Your task to perform on an android device: Go to Android settings Image 0: 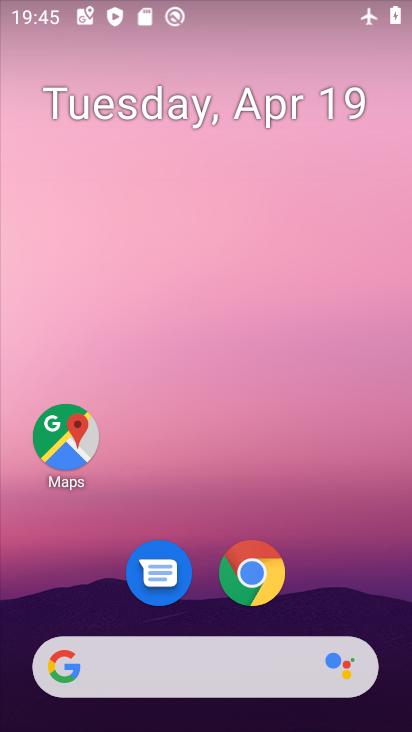
Step 0: drag from (332, 297) to (302, 98)
Your task to perform on an android device: Go to Android settings Image 1: 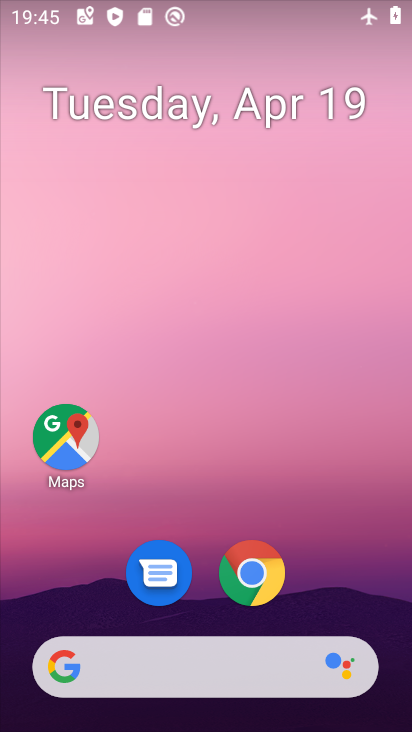
Step 1: click (358, 122)
Your task to perform on an android device: Go to Android settings Image 2: 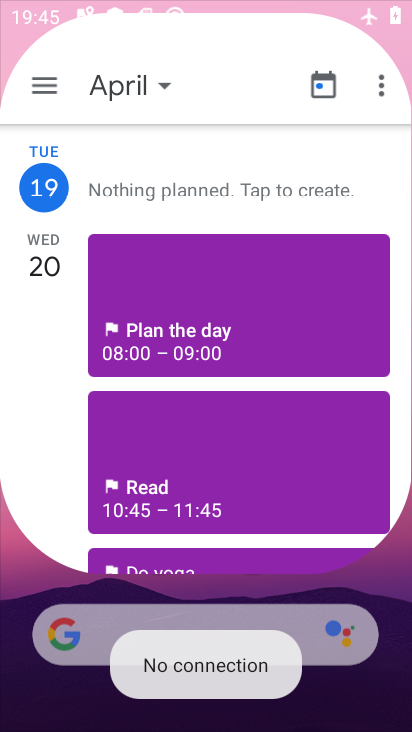
Step 2: drag from (365, 532) to (300, 36)
Your task to perform on an android device: Go to Android settings Image 3: 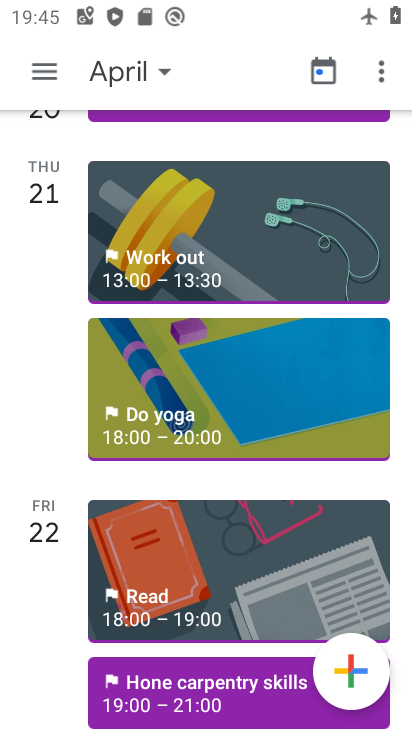
Step 3: press back button
Your task to perform on an android device: Go to Android settings Image 4: 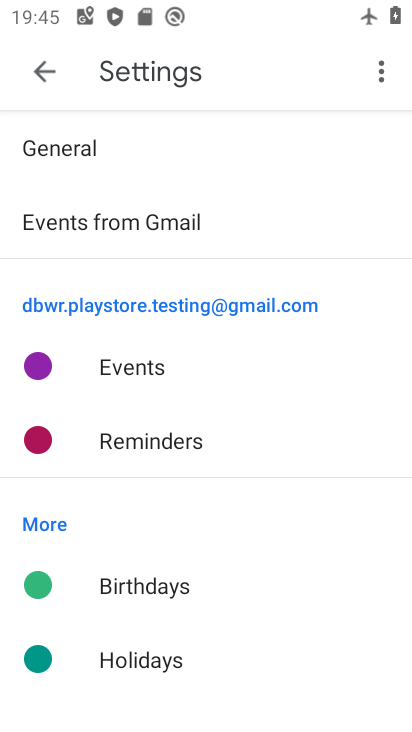
Step 4: press home button
Your task to perform on an android device: Go to Android settings Image 5: 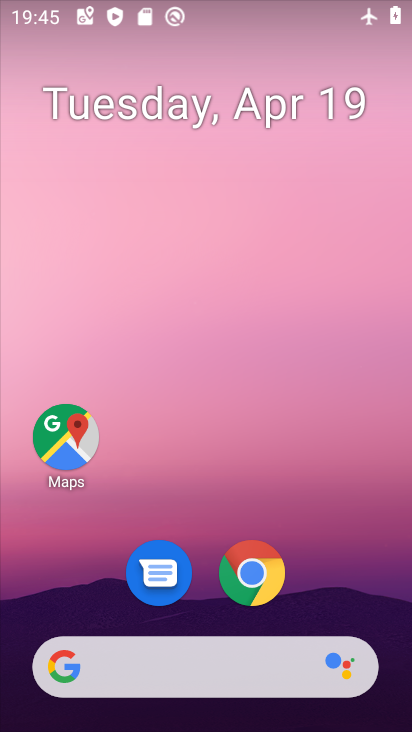
Step 5: drag from (381, 619) to (309, 13)
Your task to perform on an android device: Go to Android settings Image 6: 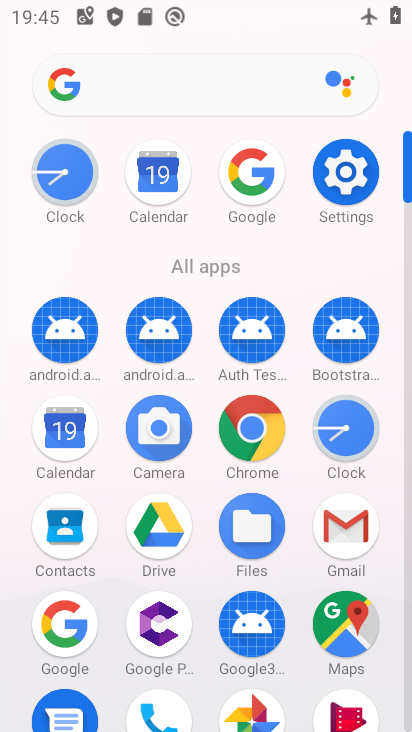
Step 6: click (339, 183)
Your task to perform on an android device: Go to Android settings Image 7: 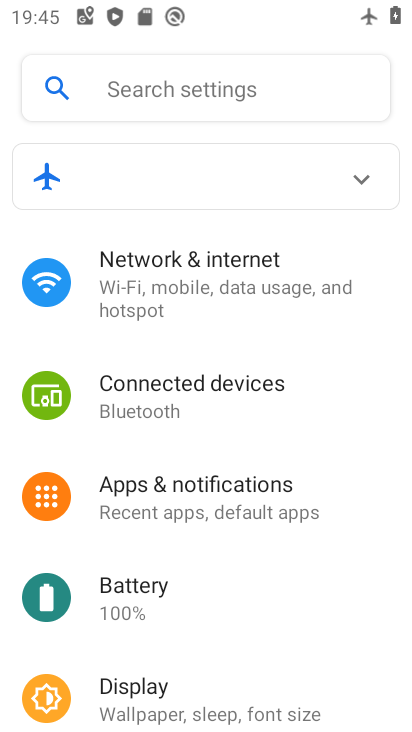
Step 7: click (343, 116)
Your task to perform on an android device: Go to Android settings Image 8: 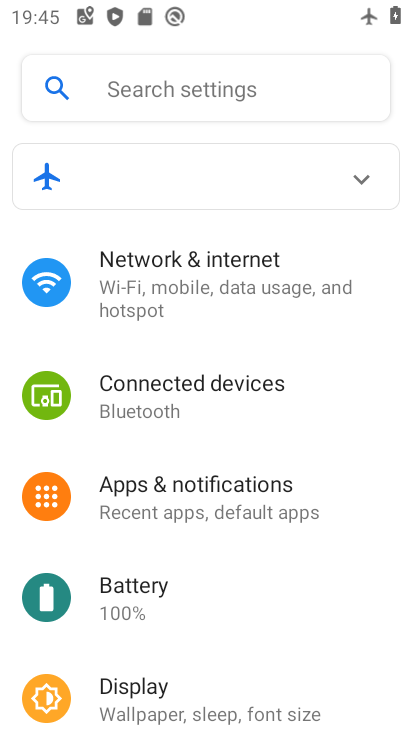
Step 8: drag from (410, 429) to (411, 157)
Your task to perform on an android device: Go to Android settings Image 9: 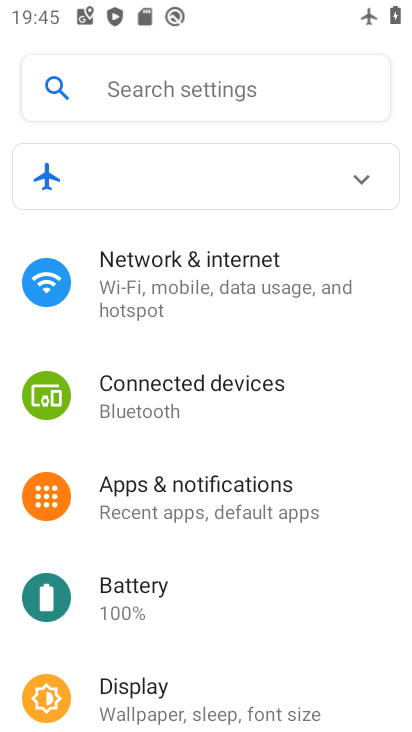
Step 9: drag from (369, 386) to (346, 260)
Your task to perform on an android device: Go to Android settings Image 10: 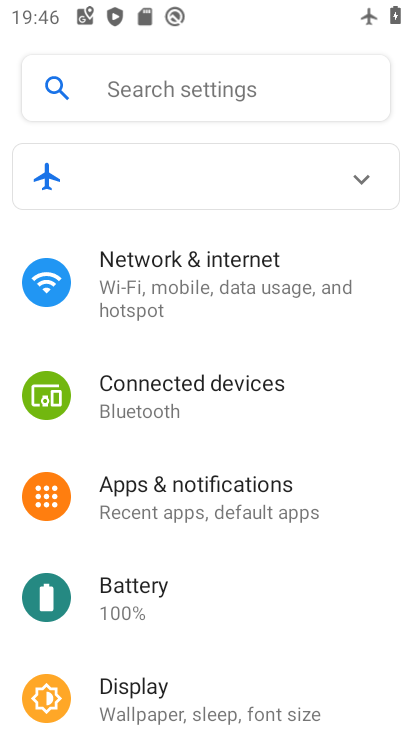
Step 10: drag from (389, 682) to (387, 251)
Your task to perform on an android device: Go to Android settings Image 11: 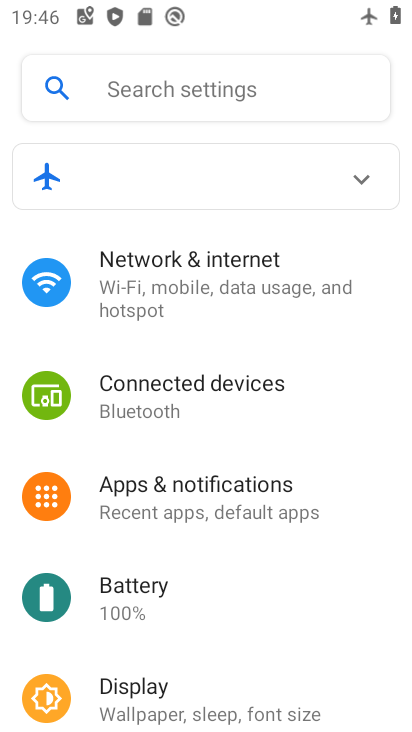
Step 11: drag from (409, 520) to (406, 292)
Your task to perform on an android device: Go to Android settings Image 12: 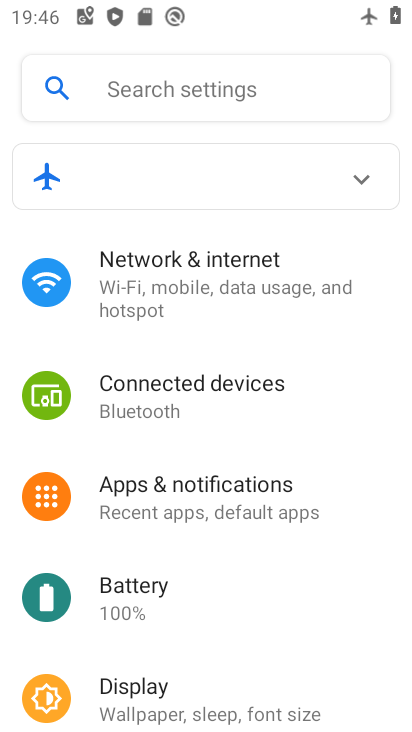
Step 12: drag from (395, 691) to (408, 464)
Your task to perform on an android device: Go to Android settings Image 13: 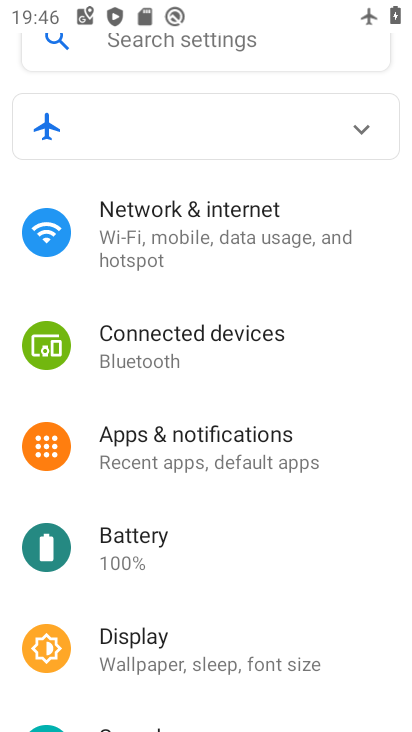
Step 13: drag from (385, 669) to (370, 177)
Your task to perform on an android device: Go to Android settings Image 14: 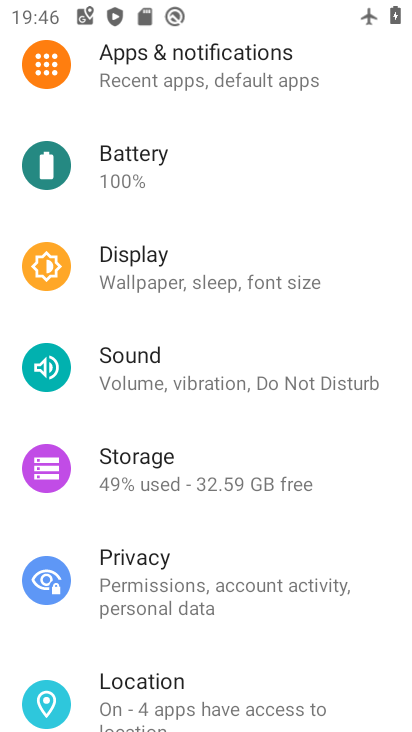
Step 14: drag from (393, 630) to (393, 163)
Your task to perform on an android device: Go to Android settings Image 15: 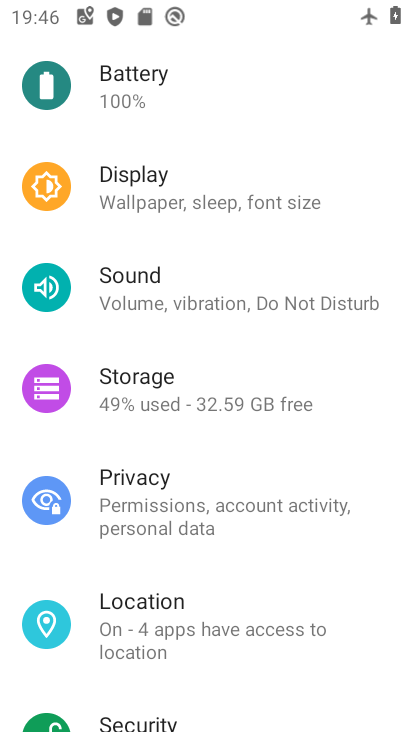
Step 15: drag from (389, 642) to (405, 126)
Your task to perform on an android device: Go to Android settings Image 16: 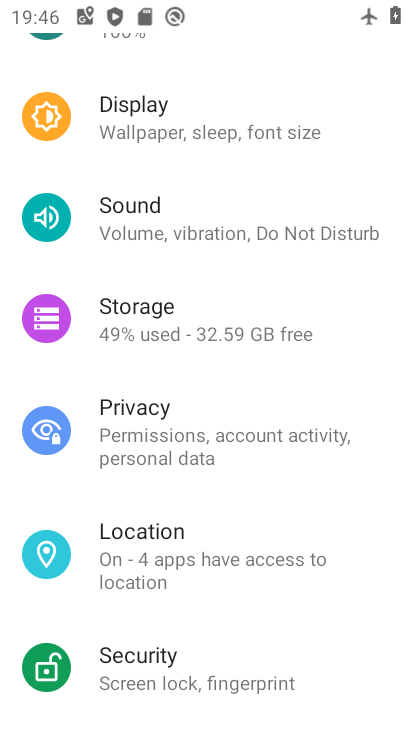
Step 16: drag from (408, 464) to (411, 541)
Your task to perform on an android device: Go to Android settings Image 17: 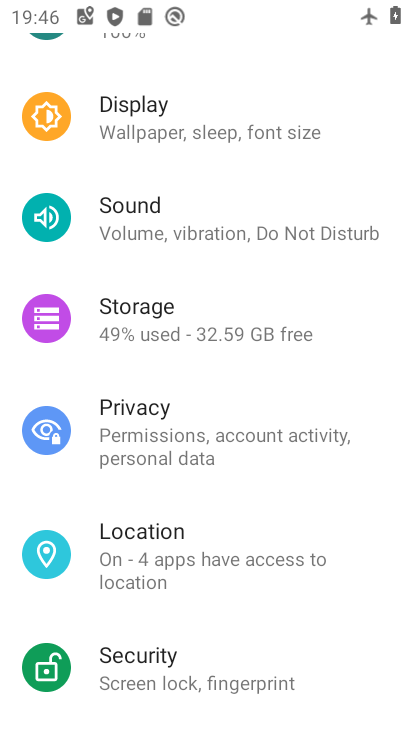
Step 17: drag from (401, 516) to (409, 209)
Your task to perform on an android device: Go to Android settings Image 18: 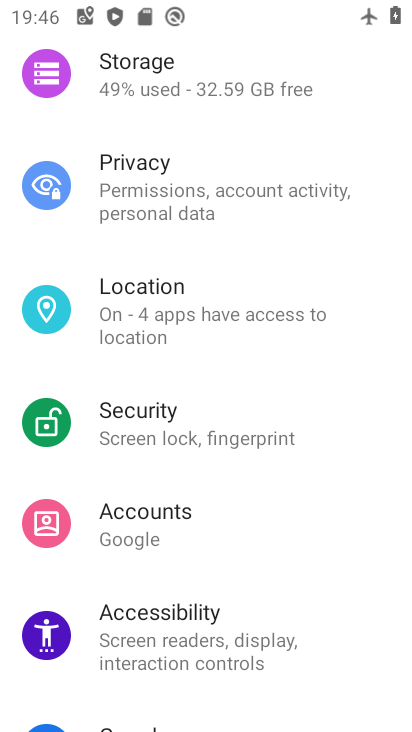
Step 18: drag from (394, 554) to (410, 503)
Your task to perform on an android device: Go to Android settings Image 19: 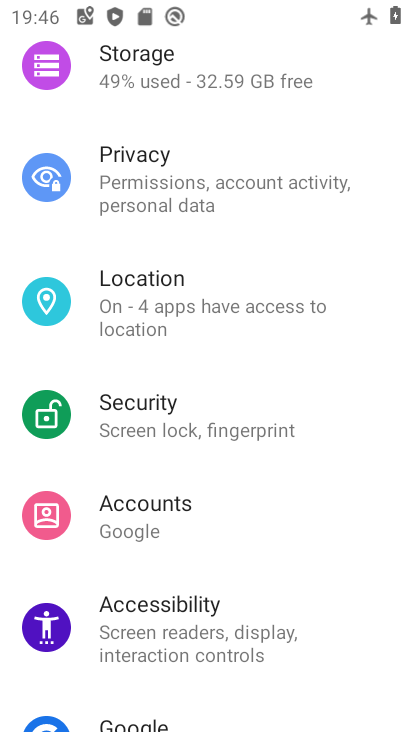
Step 19: drag from (405, 420) to (411, 180)
Your task to perform on an android device: Go to Android settings Image 20: 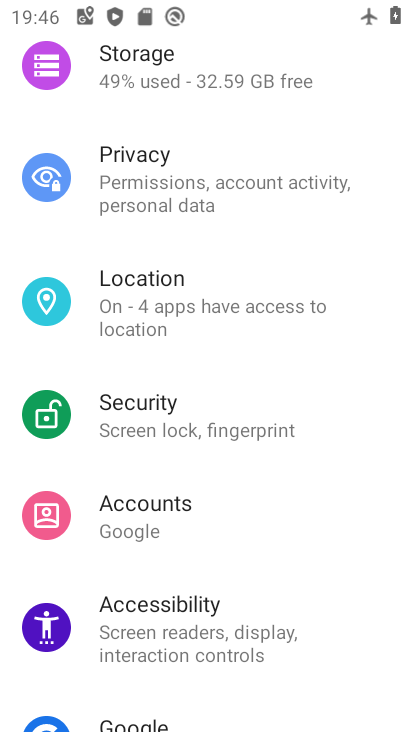
Step 20: drag from (388, 542) to (400, 102)
Your task to perform on an android device: Go to Android settings Image 21: 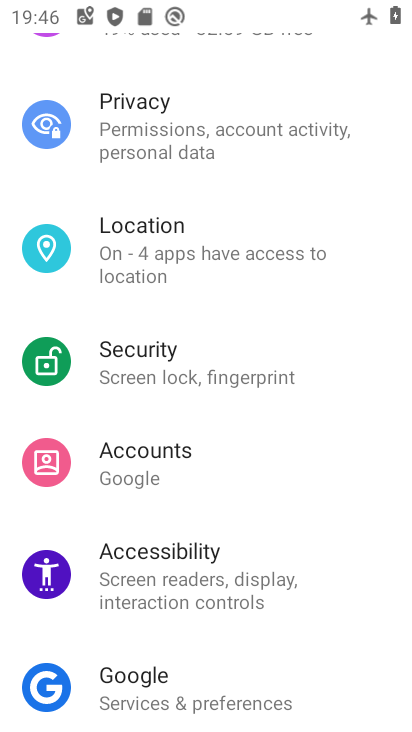
Step 21: drag from (395, 546) to (410, 115)
Your task to perform on an android device: Go to Android settings Image 22: 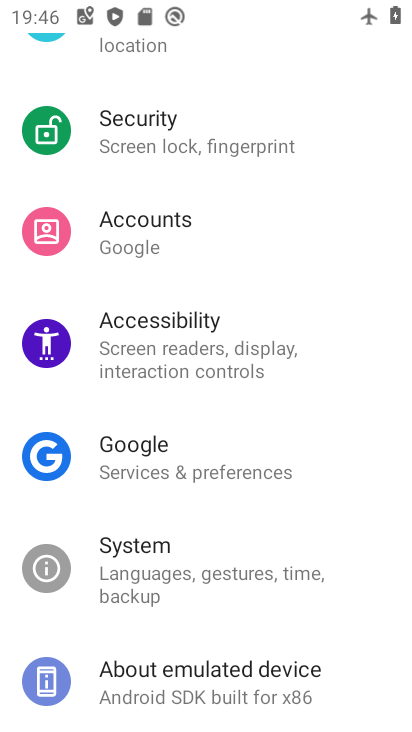
Step 22: click (111, 688)
Your task to perform on an android device: Go to Android settings Image 23: 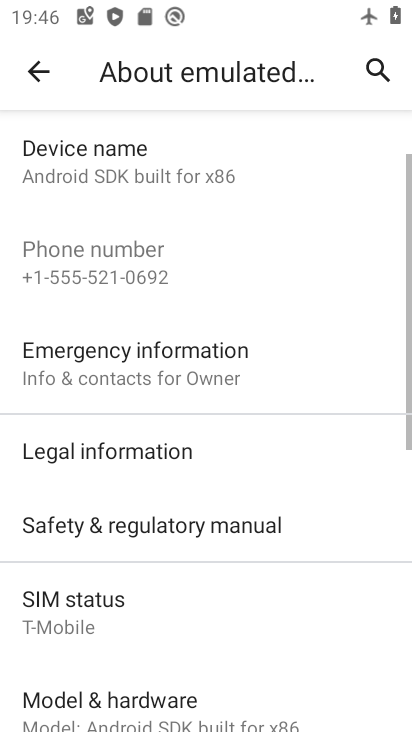
Step 23: task complete